Your task to perform on an android device: turn on translation in the chrome app Image 0: 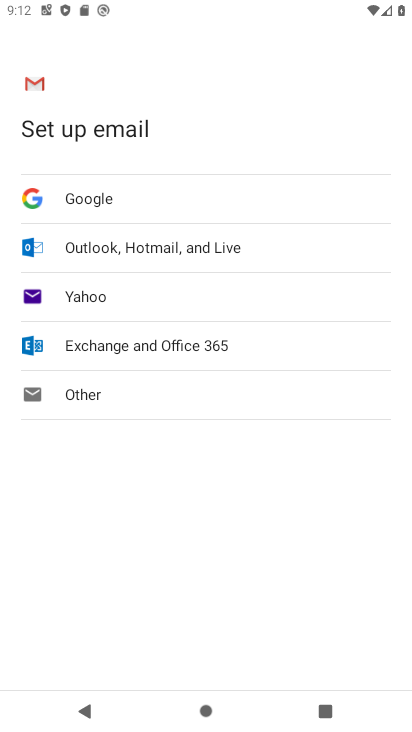
Step 0: press home button
Your task to perform on an android device: turn on translation in the chrome app Image 1: 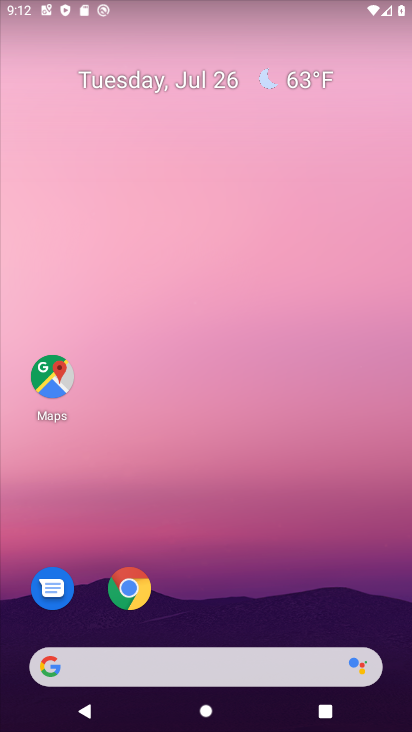
Step 1: click (129, 602)
Your task to perform on an android device: turn on translation in the chrome app Image 2: 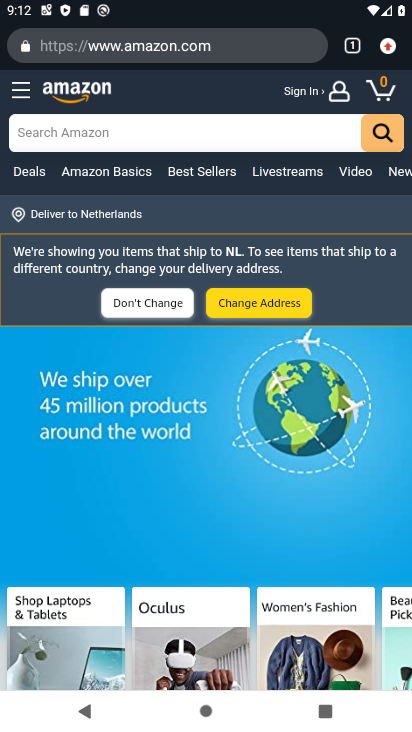
Step 2: click (386, 57)
Your task to perform on an android device: turn on translation in the chrome app Image 3: 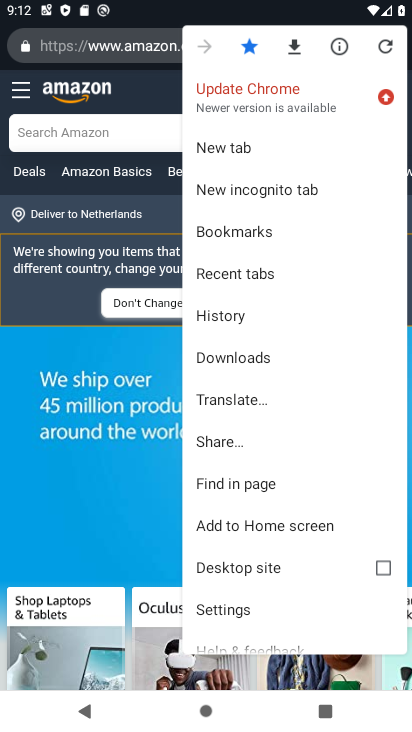
Step 3: click (245, 607)
Your task to perform on an android device: turn on translation in the chrome app Image 4: 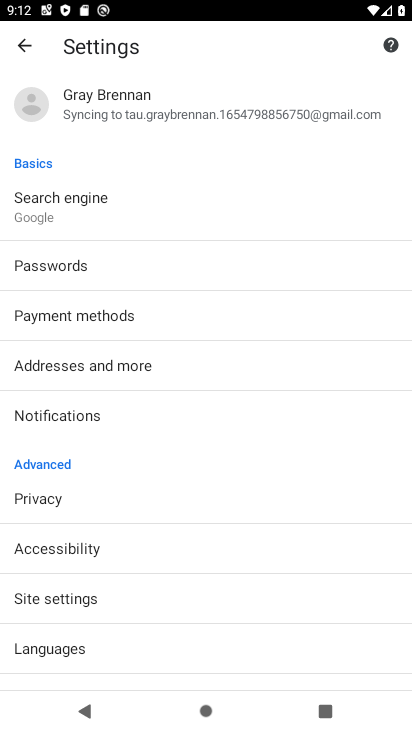
Step 4: click (122, 637)
Your task to perform on an android device: turn on translation in the chrome app Image 5: 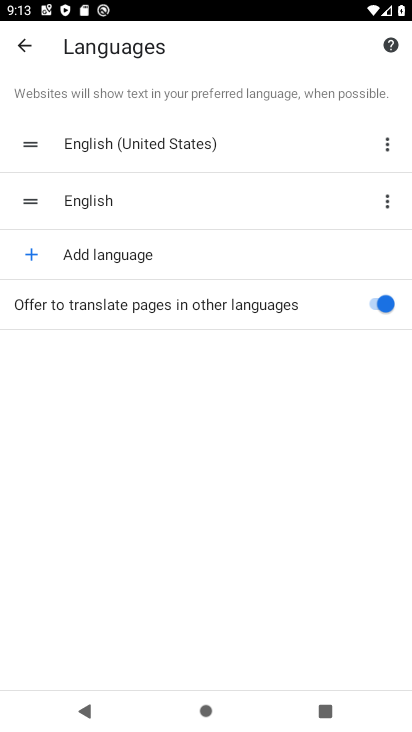
Step 5: task complete